Your task to perform on an android device: Go to location settings Image 0: 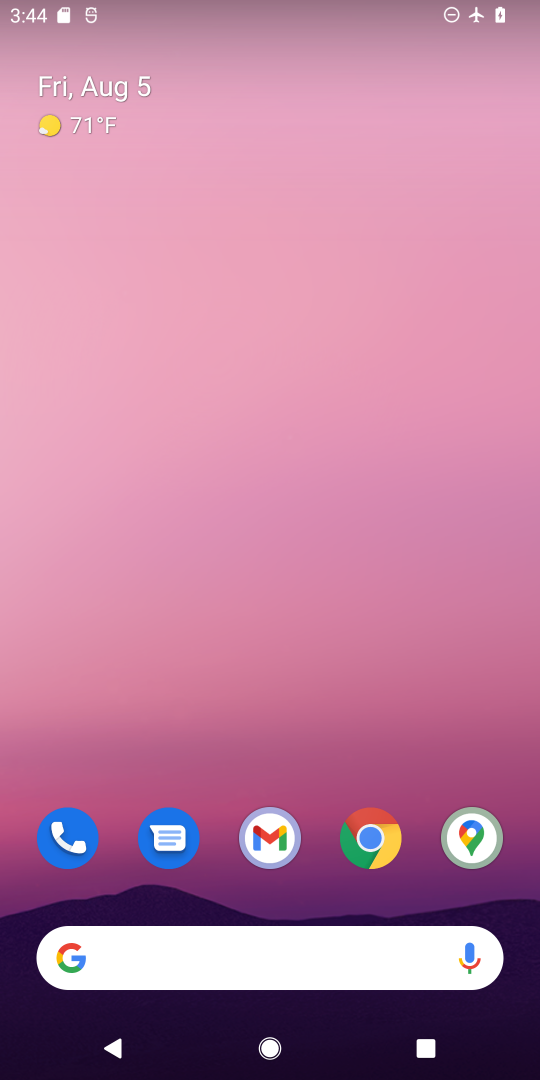
Step 0: drag from (425, 793) to (374, 154)
Your task to perform on an android device: Go to location settings Image 1: 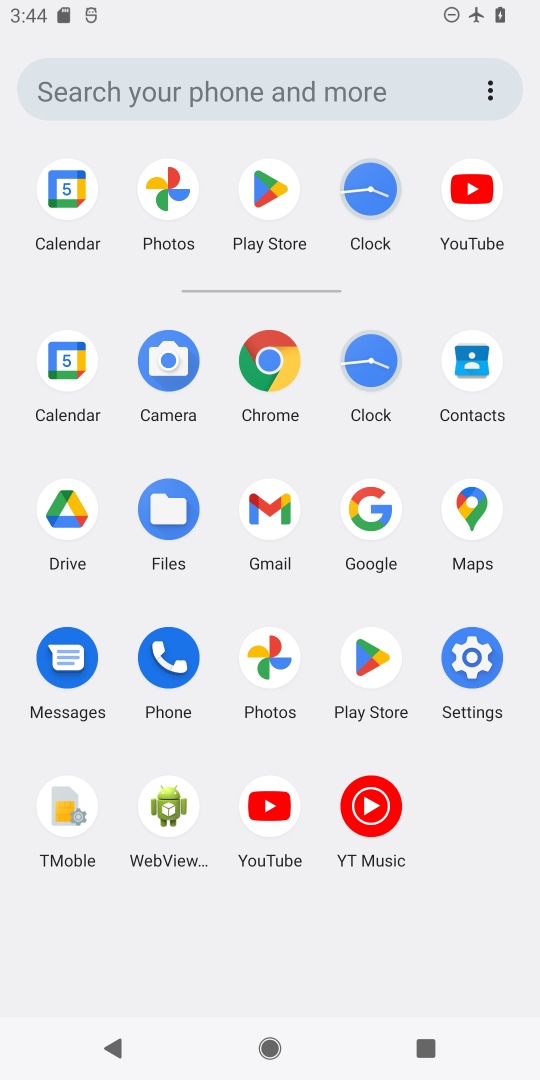
Step 1: click (482, 671)
Your task to perform on an android device: Go to location settings Image 2: 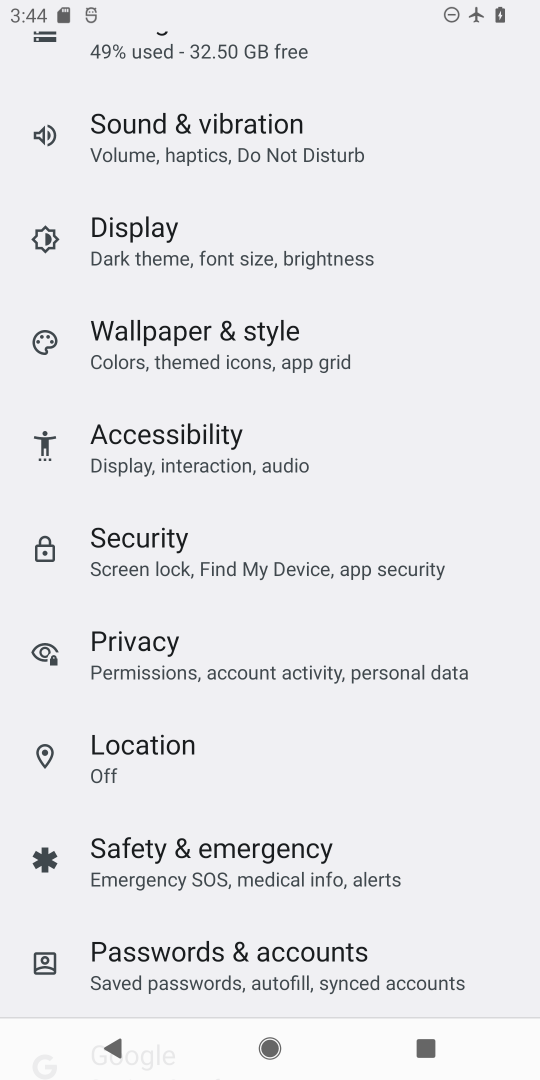
Step 2: click (320, 768)
Your task to perform on an android device: Go to location settings Image 3: 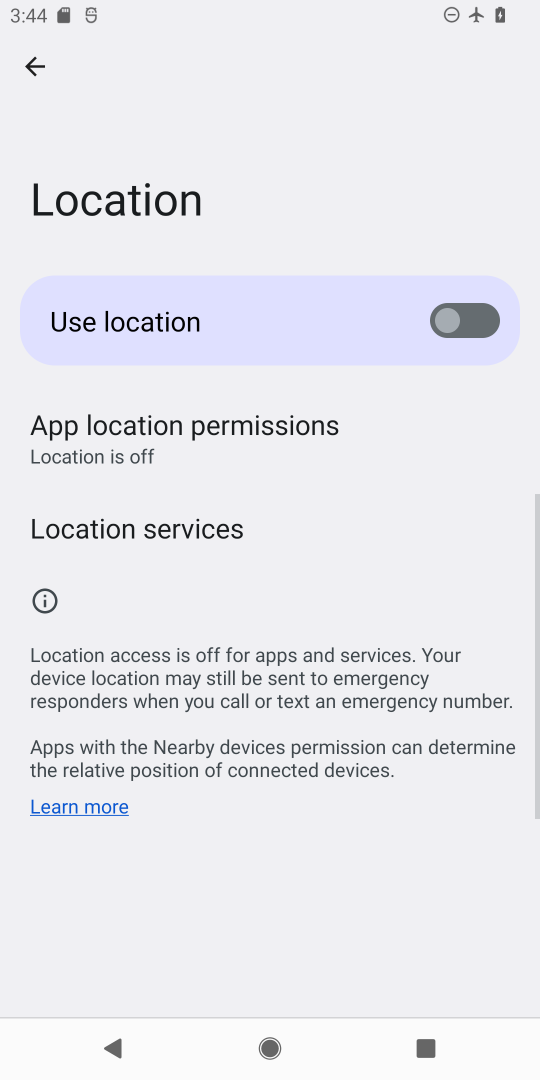
Step 3: task complete